Your task to perform on an android device: Play the last video I watched on Youtube Image 0: 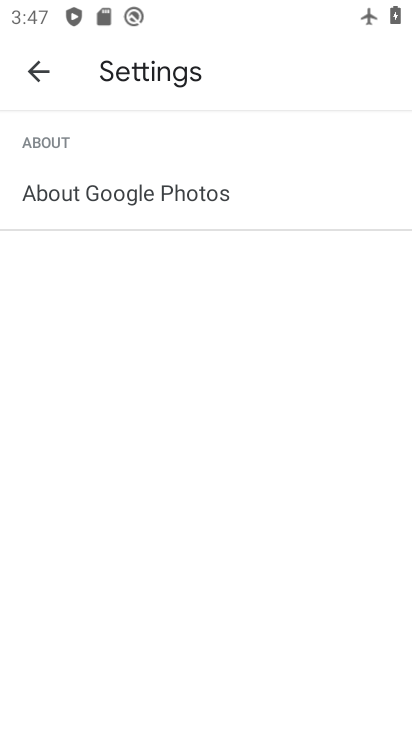
Step 0: press home button
Your task to perform on an android device: Play the last video I watched on Youtube Image 1: 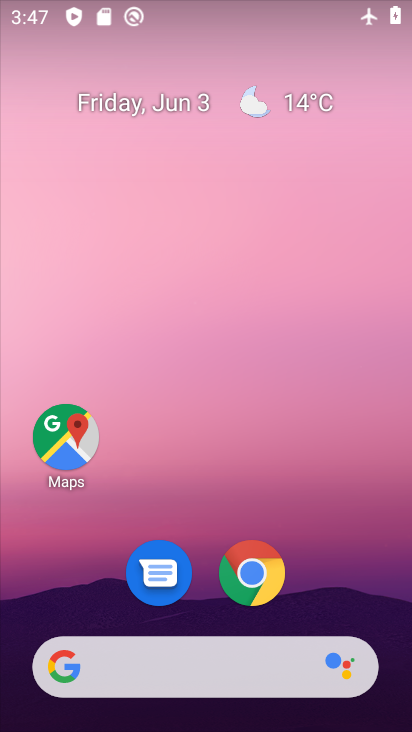
Step 1: drag from (199, 610) to (188, 483)
Your task to perform on an android device: Play the last video I watched on Youtube Image 2: 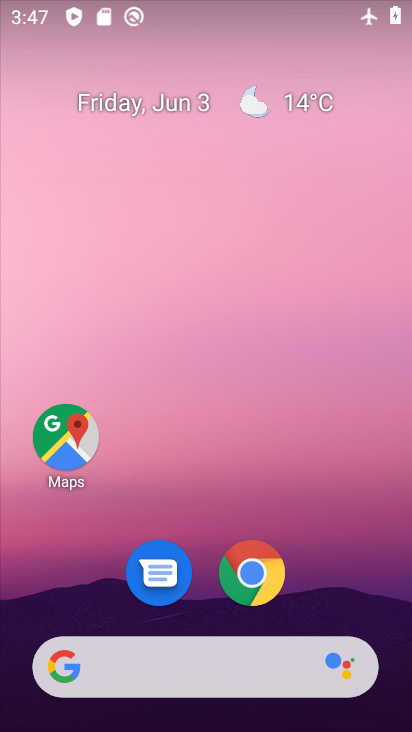
Step 2: drag from (202, 597) to (201, 463)
Your task to perform on an android device: Play the last video I watched on Youtube Image 3: 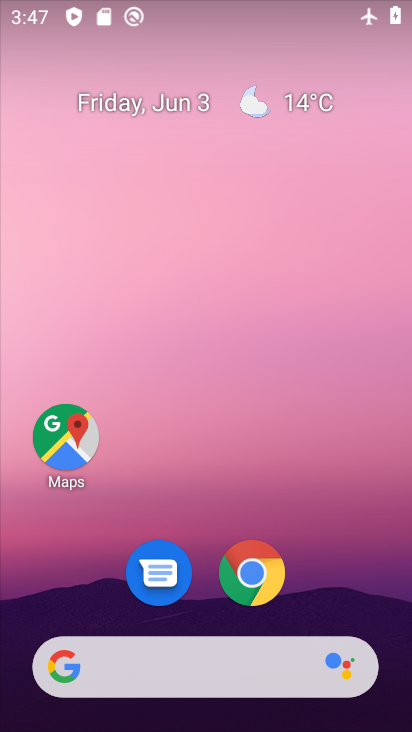
Step 3: drag from (180, 664) to (301, 240)
Your task to perform on an android device: Play the last video I watched on Youtube Image 4: 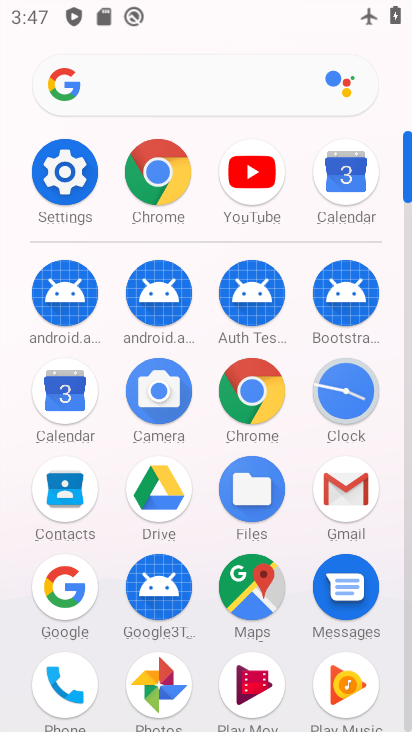
Step 4: click (249, 177)
Your task to perform on an android device: Play the last video I watched on Youtube Image 5: 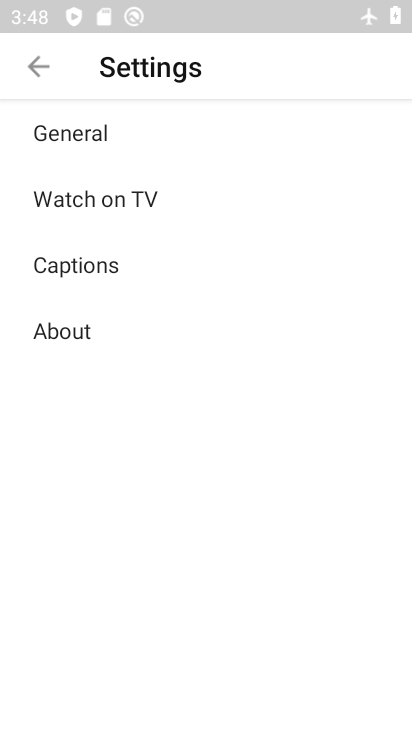
Step 5: click (45, 63)
Your task to perform on an android device: Play the last video I watched on Youtube Image 6: 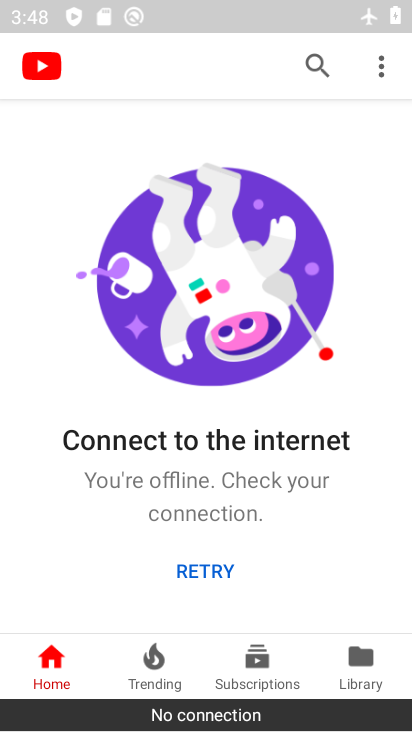
Step 6: click (389, 670)
Your task to perform on an android device: Play the last video I watched on Youtube Image 7: 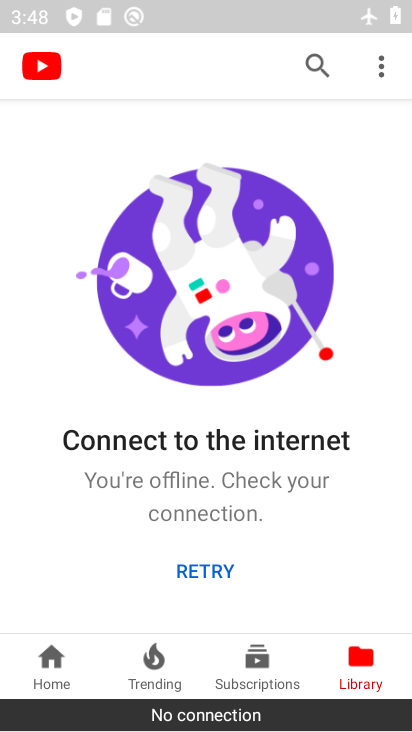
Step 7: task complete